Your task to perform on an android device: Clear the shopping cart on target.com. Search for logitech g903 on target.com, select the first entry, add it to the cart, then select checkout. Image 0: 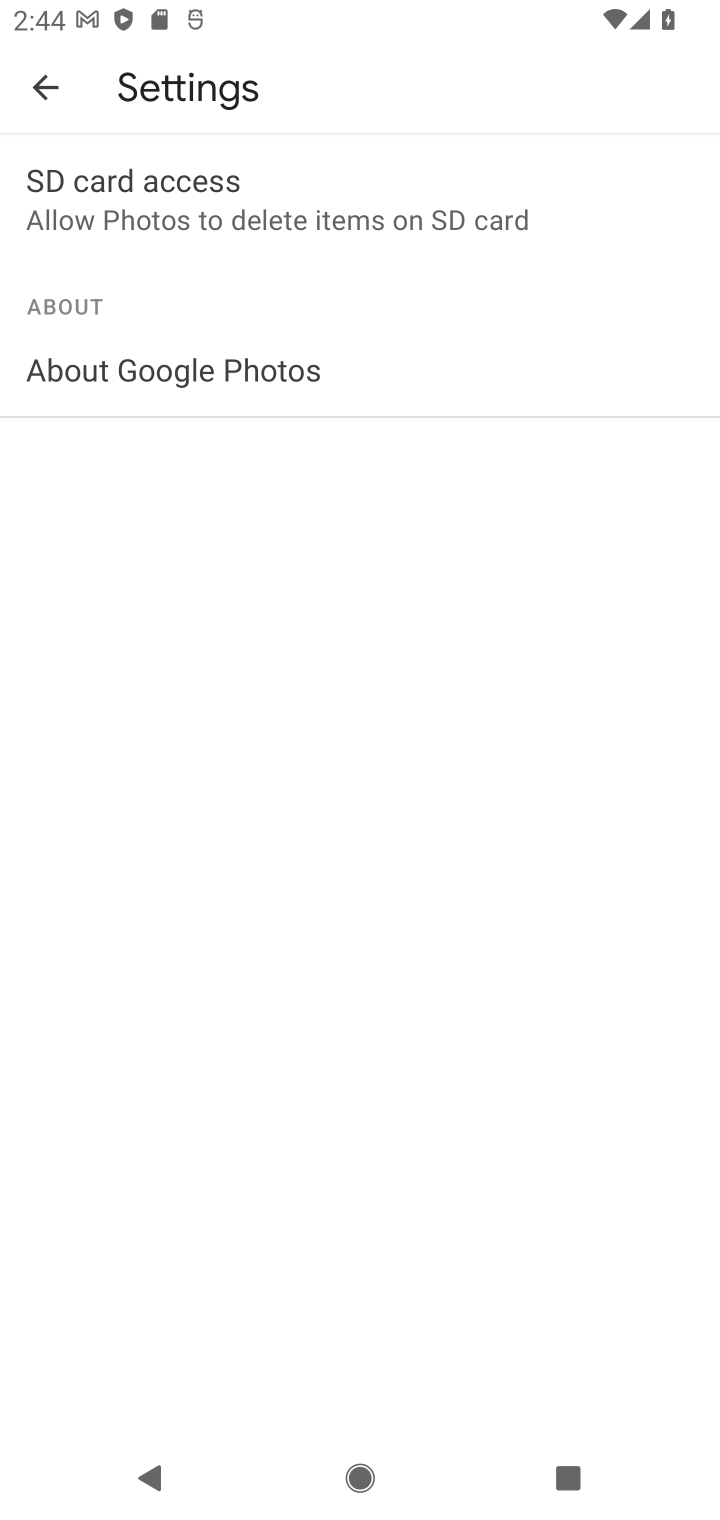
Step 0: press home button
Your task to perform on an android device: Clear the shopping cart on target.com. Search for logitech g903 on target.com, select the first entry, add it to the cart, then select checkout. Image 1: 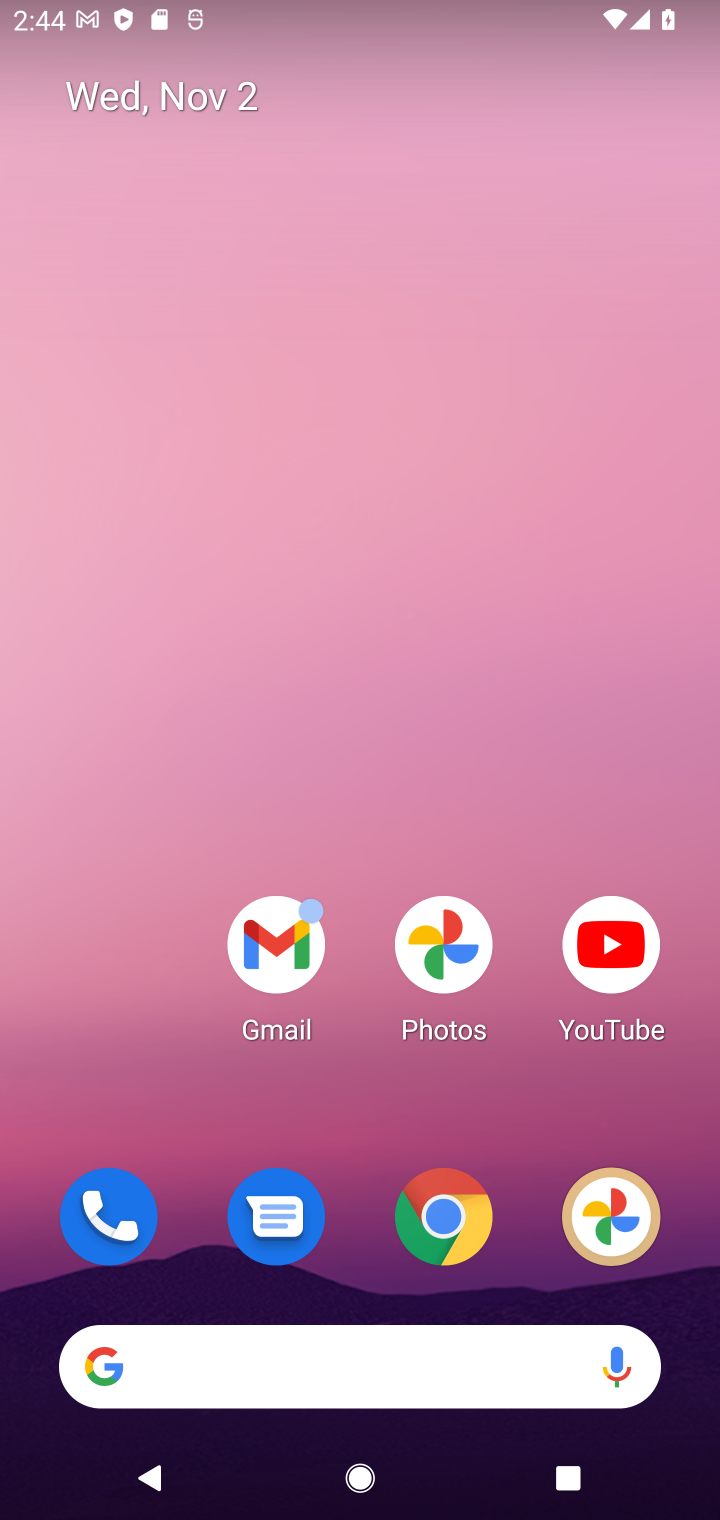
Step 1: click (449, 1199)
Your task to perform on an android device: Clear the shopping cart on target.com. Search for logitech g903 on target.com, select the first entry, add it to the cart, then select checkout. Image 2: 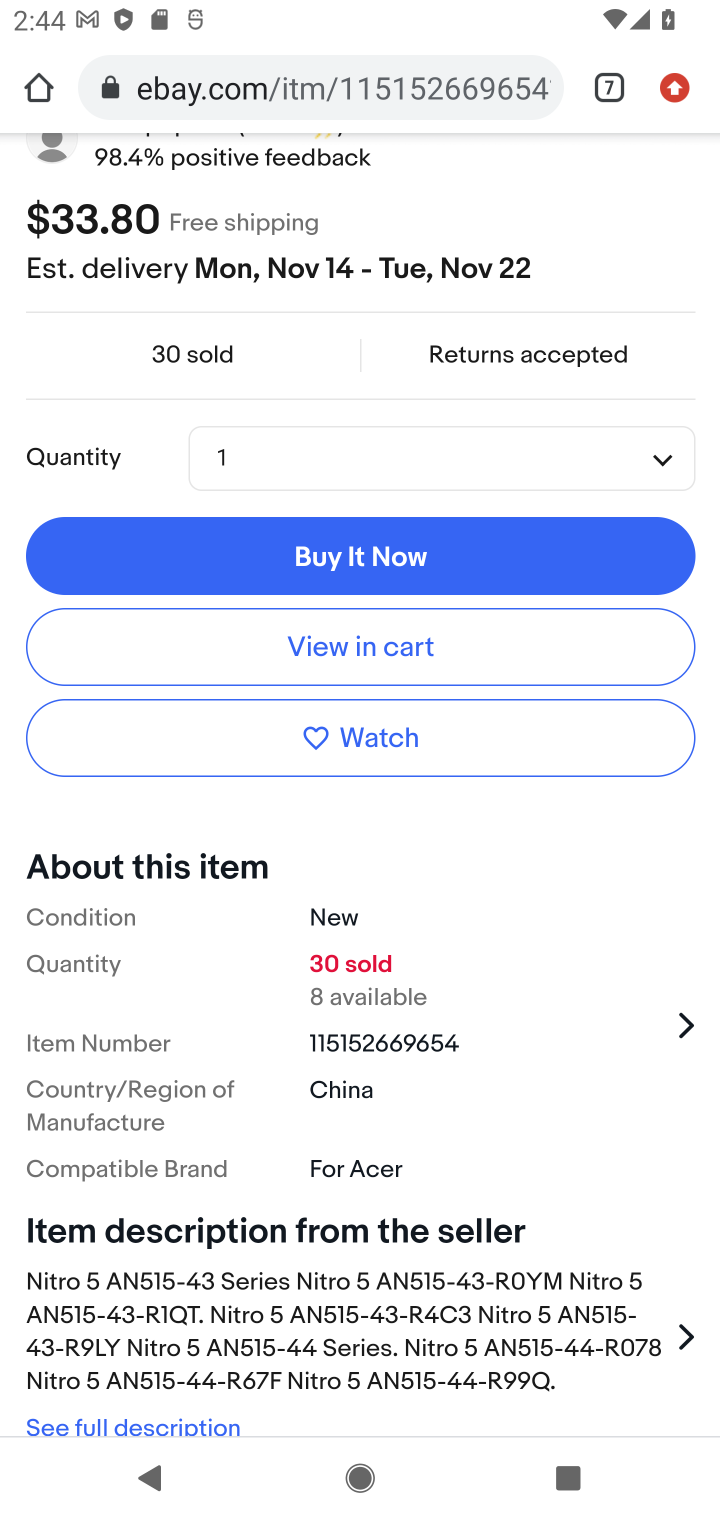
Step 2: click (608, 85)
Your task to perform on an android device: Clear the shopping cart on target.com. Search for logitech g903 on target.com, select the first entry, add it to the cart, then select checkout. Image 3: 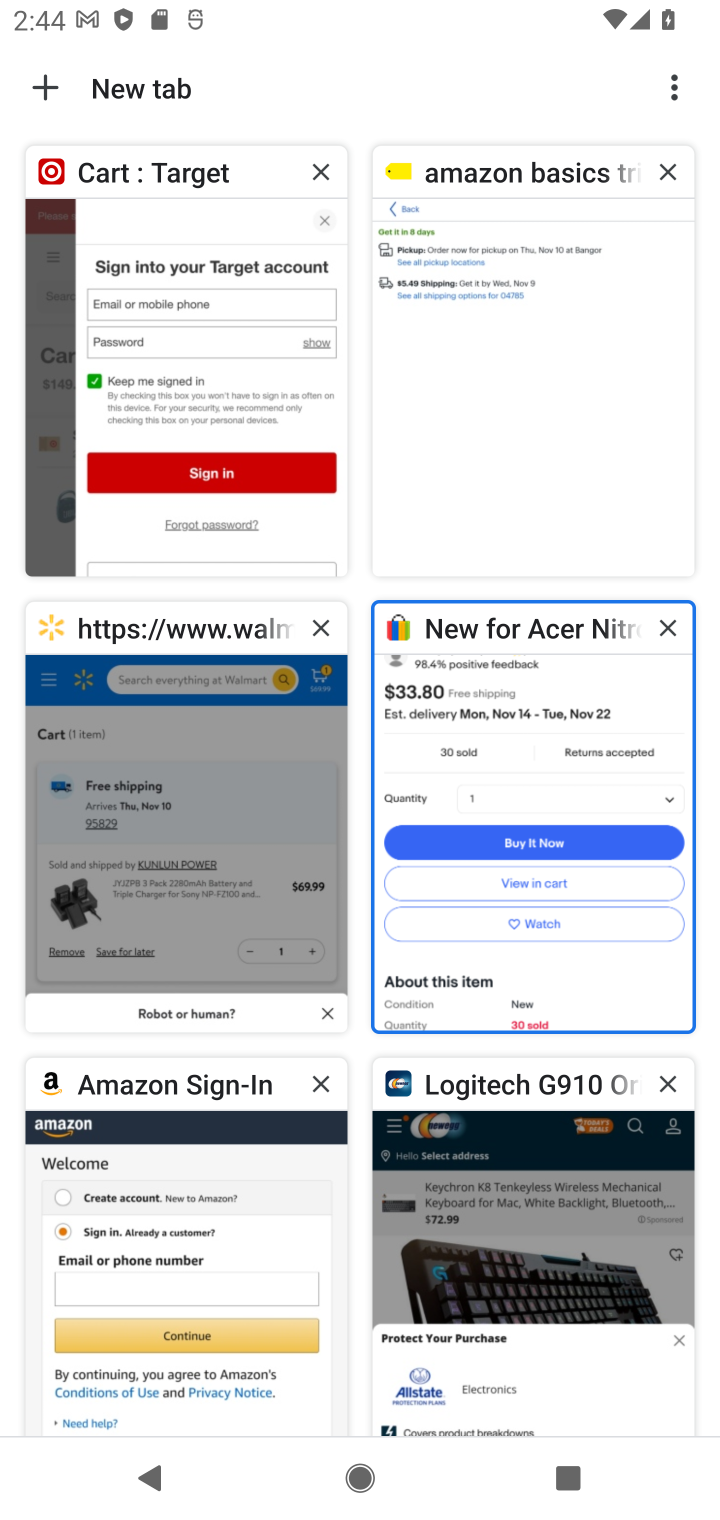
Step 3: click (211, 420)
Your task to perform on an android device: Clear the shopping cart on target.com. Search for logitech g903 on target.com, select the first entry, add it to the cart, then select checkout. Image 4: 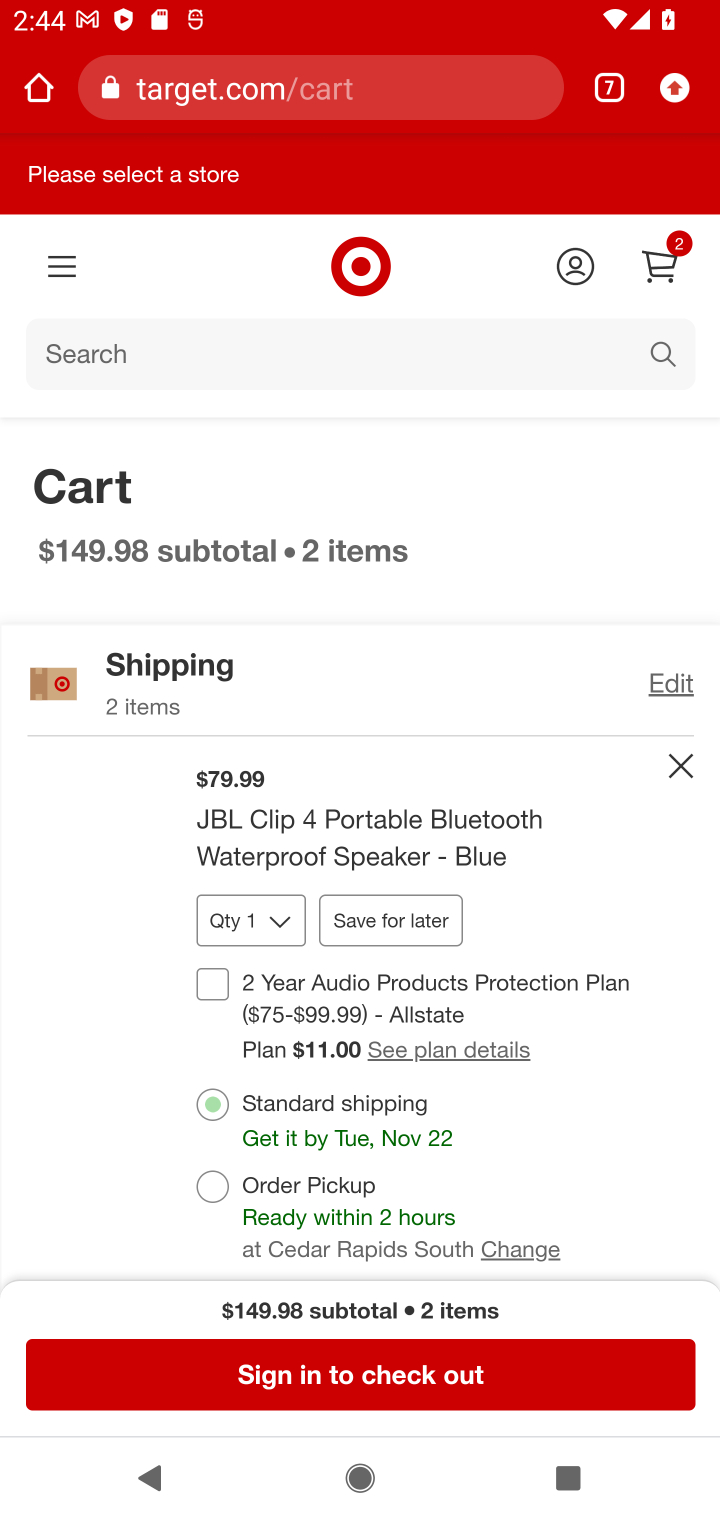
Step 4: click (663, 267)
Your task to perform on an android device: Clear the shopping cart on target.com. Search for logitech g903 on target.com, select the first entry, add it to the cart, then select checkout. Image 5: 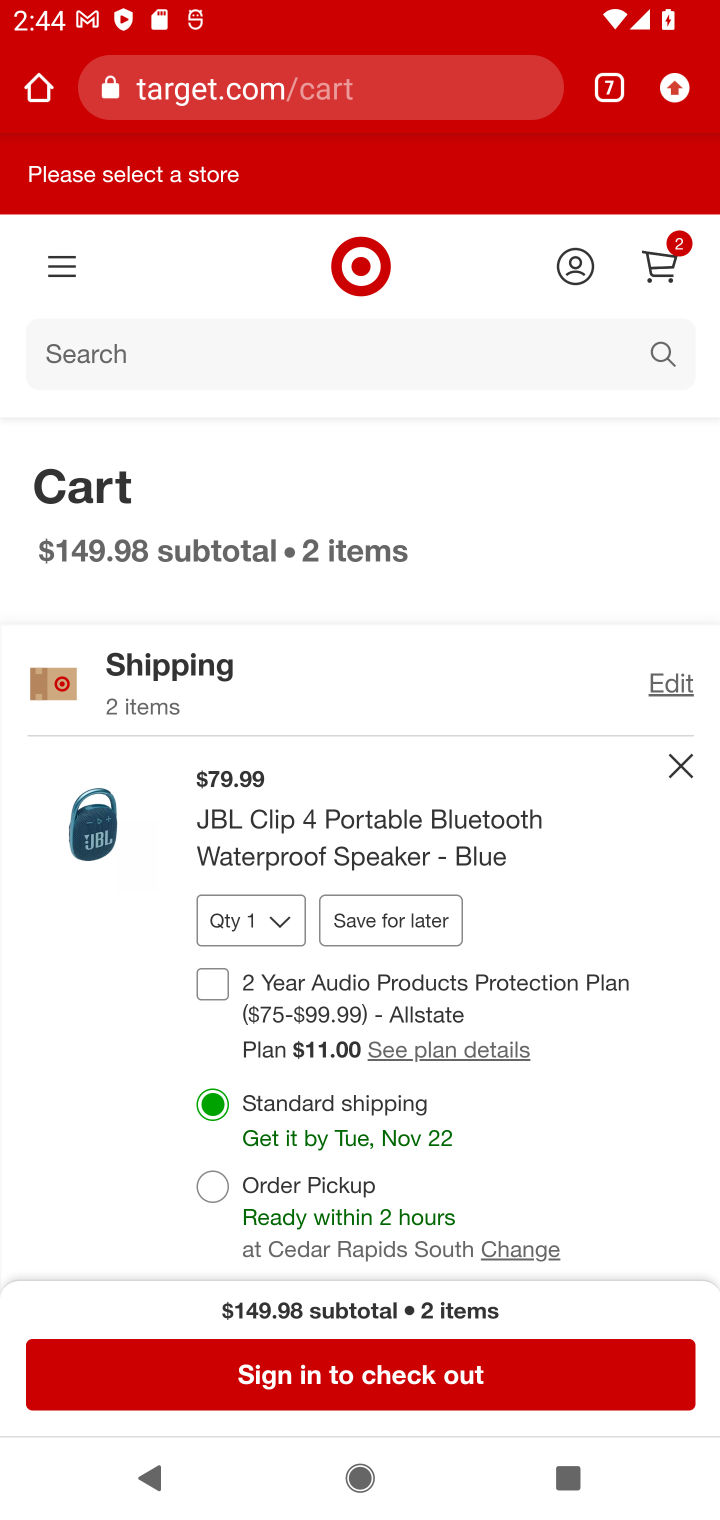
Step 5: click (682, 772)
Your task to perform on an android device: Clear the shopping cart on target.com. Search for logitech g903 on target.com, select the first entry, add it to the cart, then select checkout. Image 6: 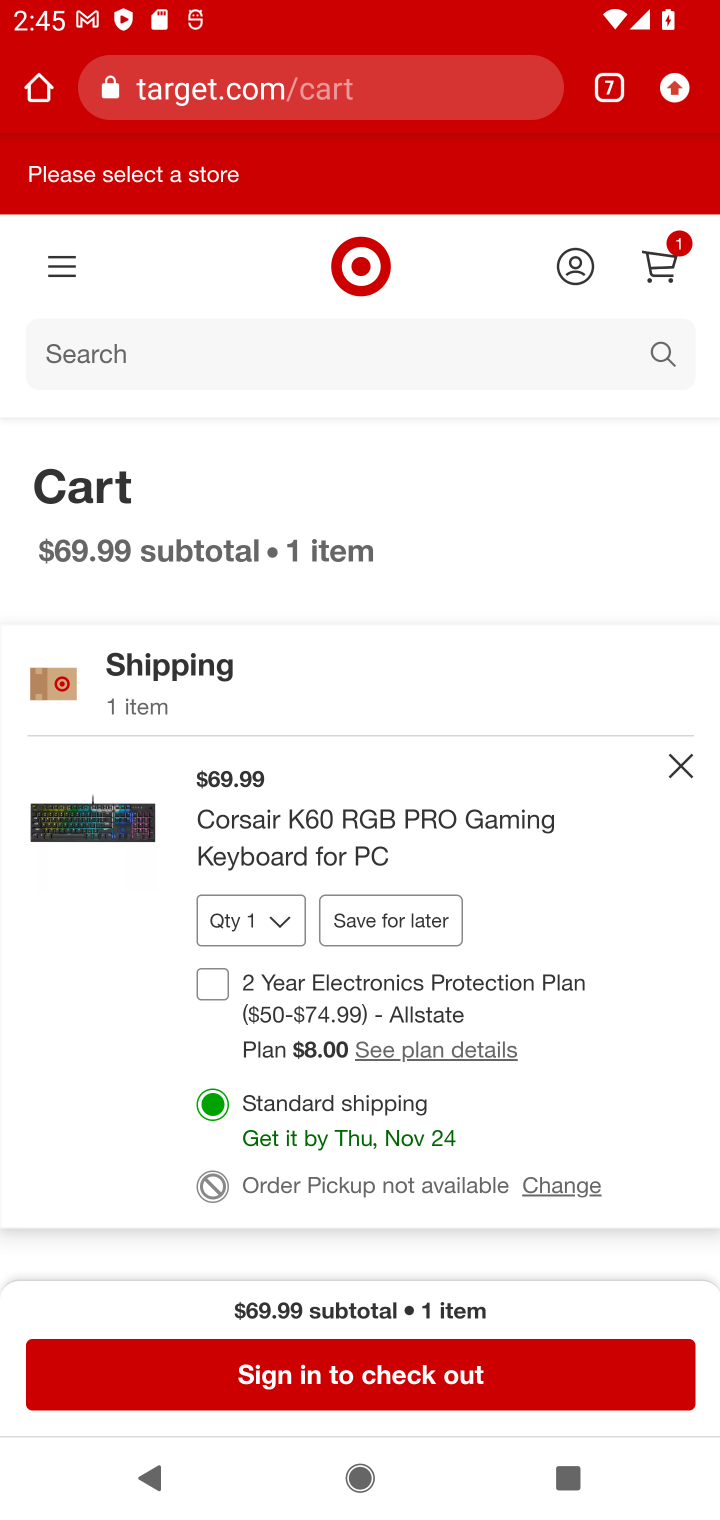
Step 6: click (679, 765)
Your task to perform on an android device: Clear the shopping cart on target.com. Search for logitech g903 on target.com, select the first entry, add it to the cart, then select checkout. Image 7: 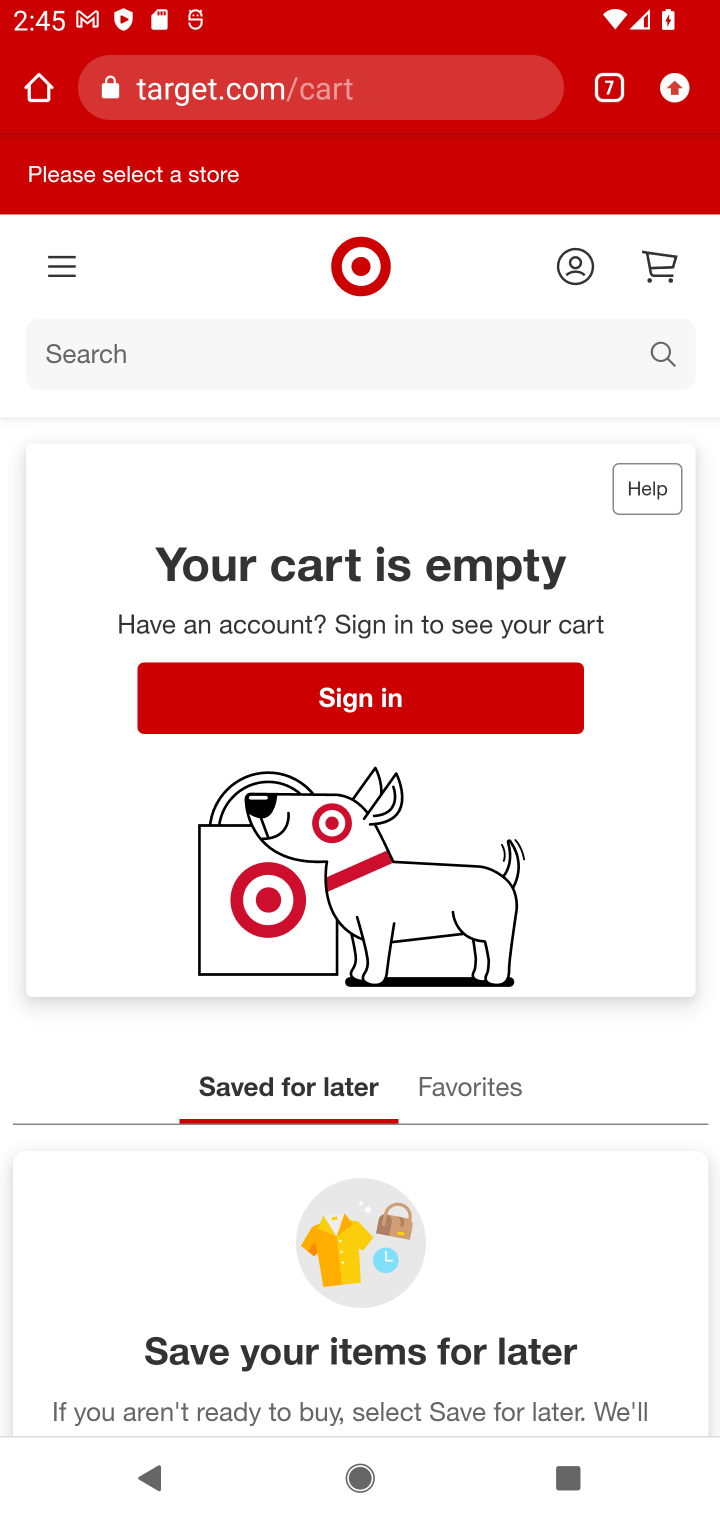
Step 7: click (207, 357)
Your task to perform on an android device: Clear the shopping cart on target.com. Search for logitech g903 on target.com, select the first entry, add it to the cart, then select checkout. Image 8: 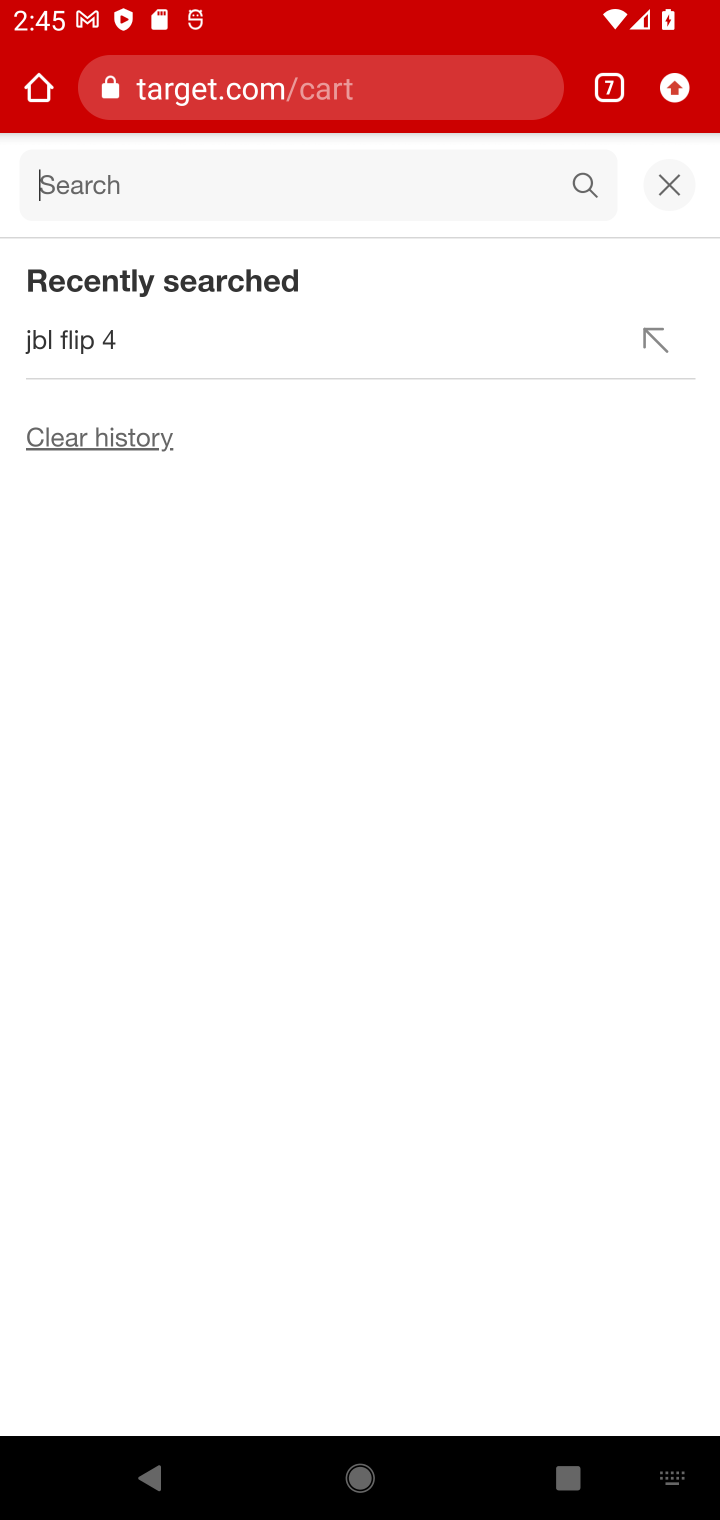
Step 8: type "logitech g903"
Your task to perform on an android device: Clear the shopping cart on target.com. Search for logitech g903 on target.com, select the first entry, add it to the cart, then select checkout. Image 9: 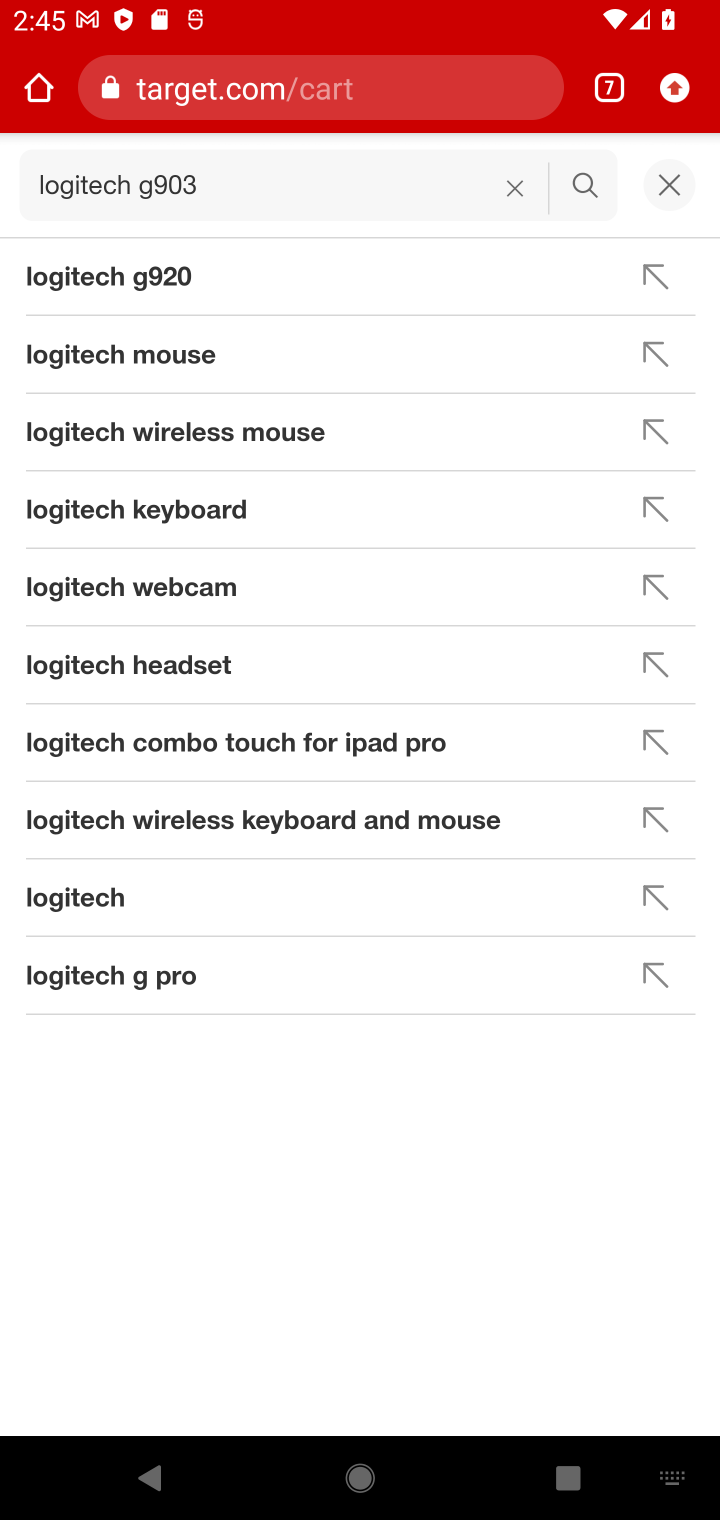
Step 9: click (195, 276)
Your task to perform on an android device: Clear the shopping cart on target.com. Search for logitech g903 on target.com, select the first entry, add it to the cart, then select checkout. Image 10: 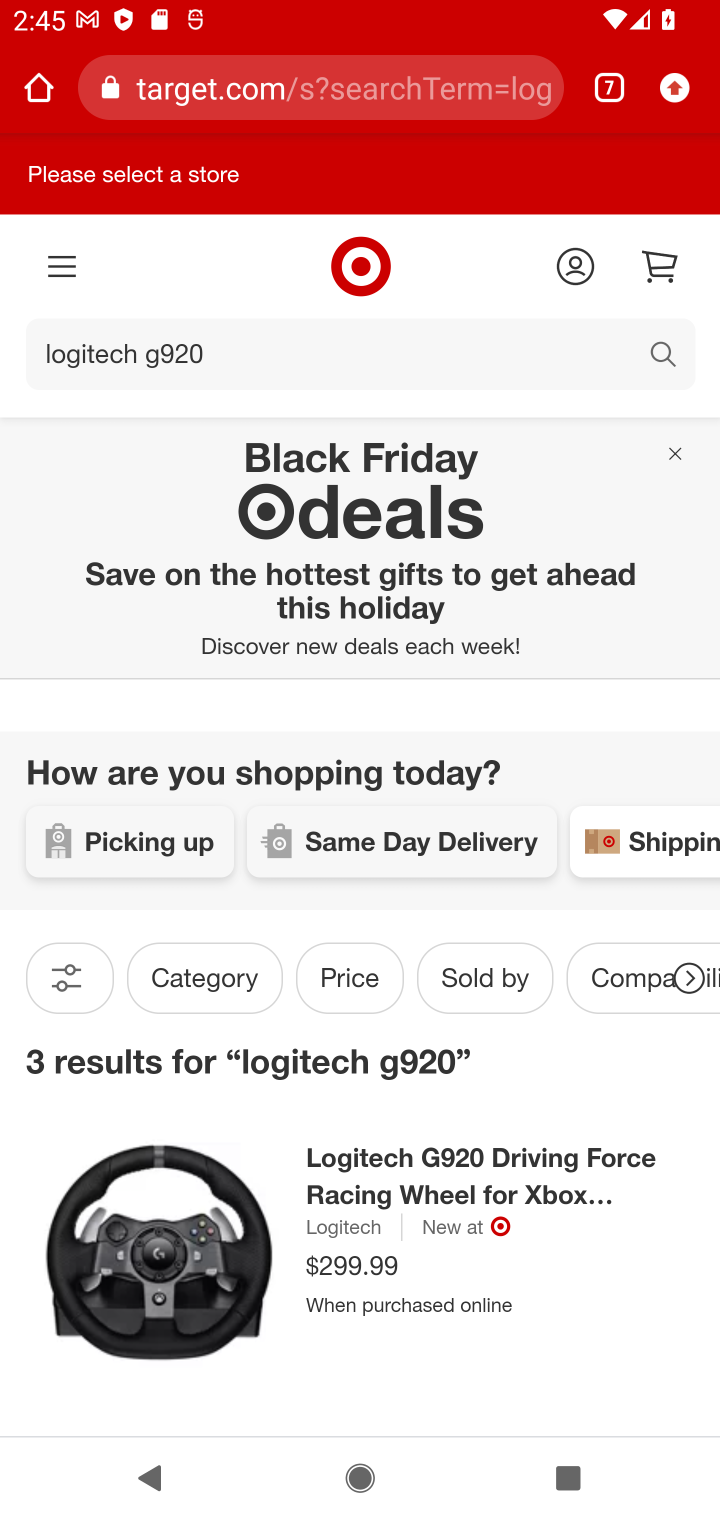
Step 10: drag from (528, 1215) to (646, 223)
Your task to perform on an android device: Clear the shopping cart on target.com. Search for logitech g903 on target.com, select the first entry, add it to the cart, then select checkout. Image 11: 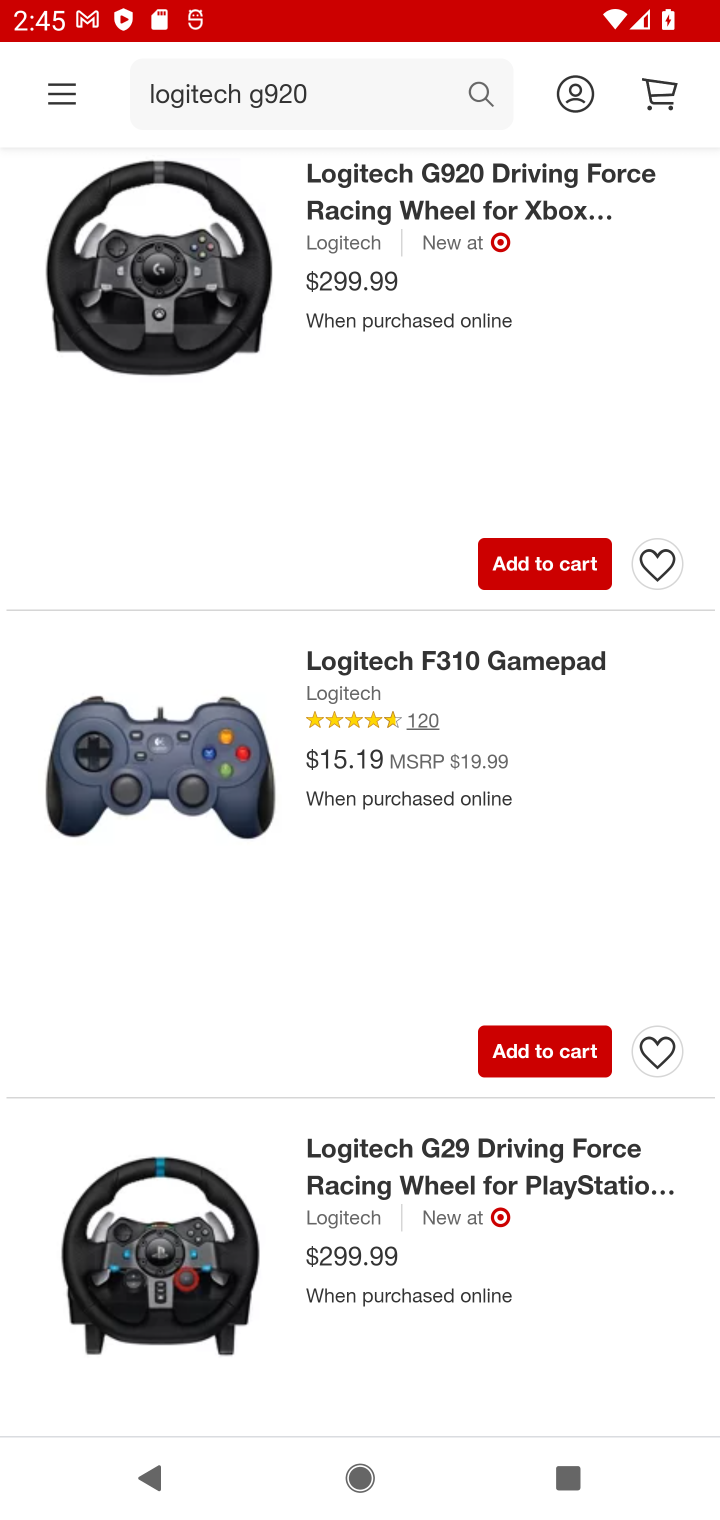
Step 11: click (533, 559)
Your task to perform on an android device: Clear the shopping cart on target.com. Search for logitech g903 on target.com, select the first entry, add it to the cart, then select checkout. Image 12: 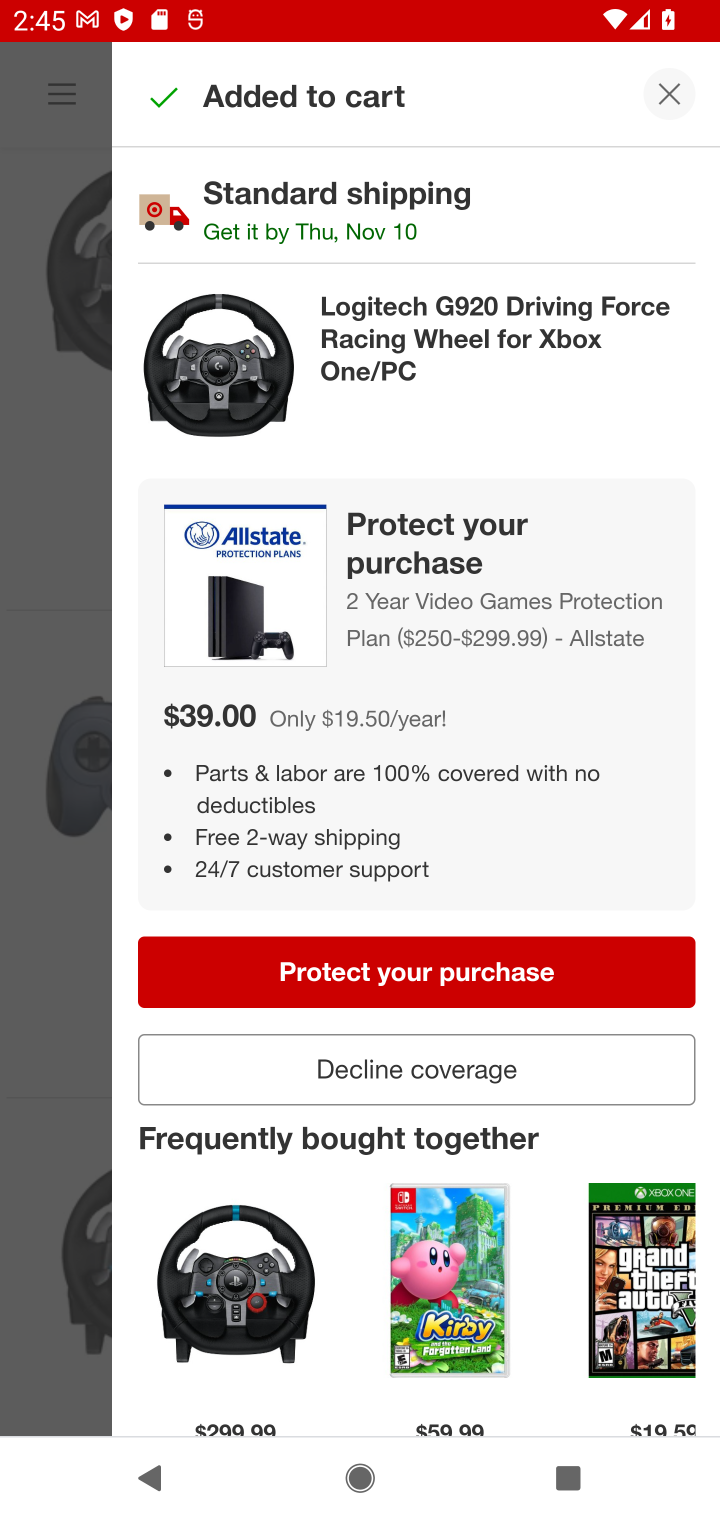
Step 12: click (308, 1056)
Your task to perform on an android device: Clear the shopping cart on target.com. Search for logitech g903 on target.com, select the first entry, add it to the cart, then select checkout. Image 13: 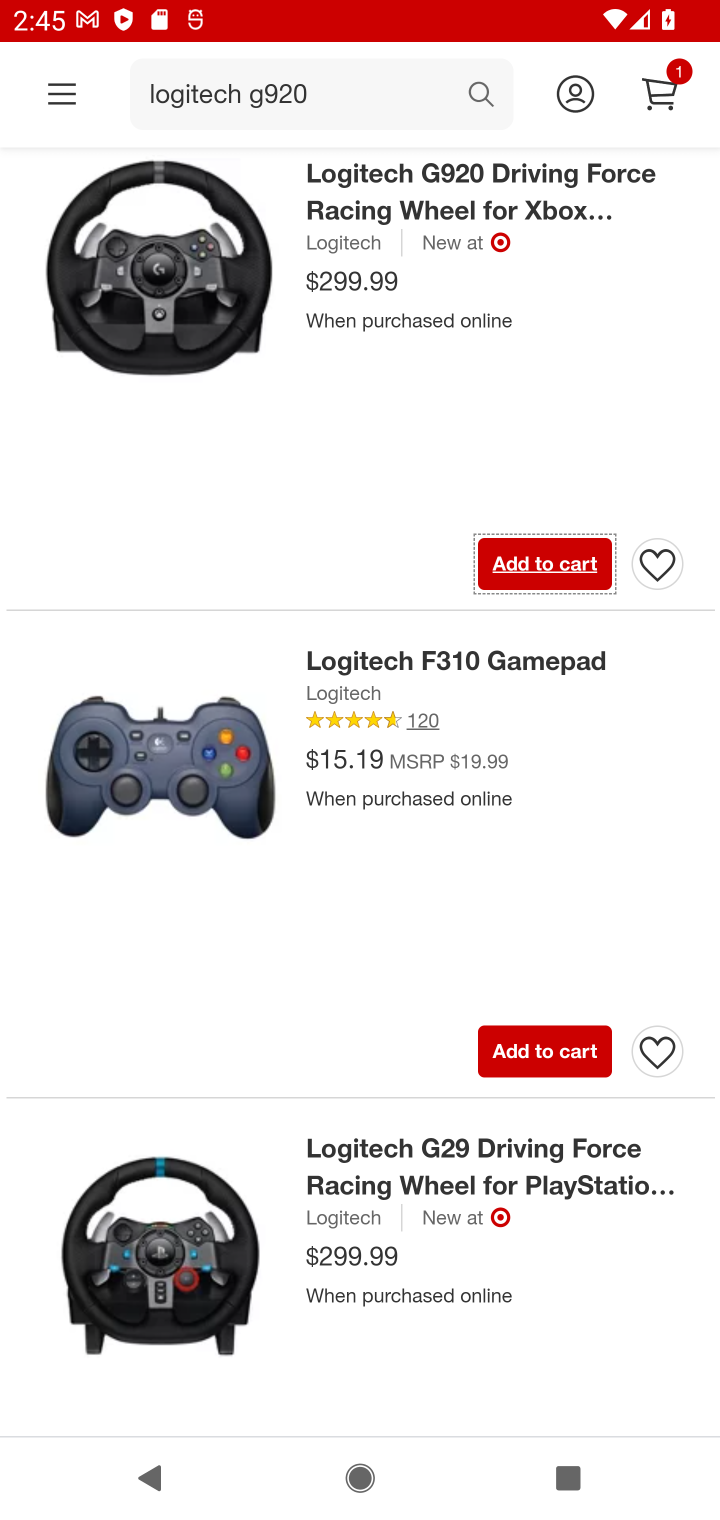
Step 13: task complete